Your task to perform on an android device: Add "rayovac triple a" to the cart on bestbuy.com, then select checkout. Image 0: 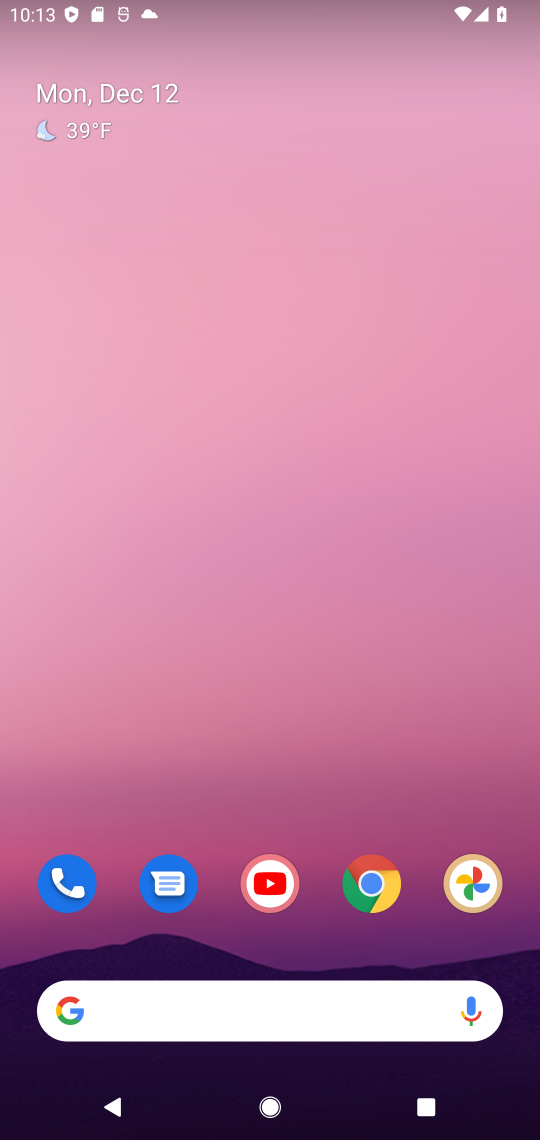
Step 0: click (246, 1005)
Your task to perform on an android device: Add "rayovac triple a" to the cart on bestbuy.com, then select checkout. Image 1: 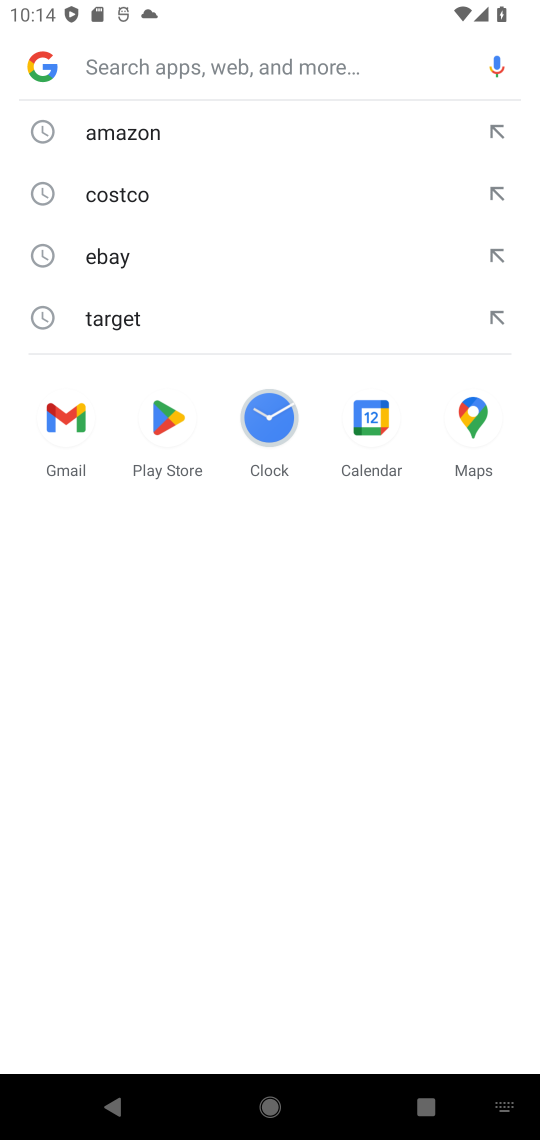
Step 1: type " bestbuy.com"
Your task to perform on an android device: Add "rayovac triple a" to the cart on bestbuy.com, then select checkout. Image 2: 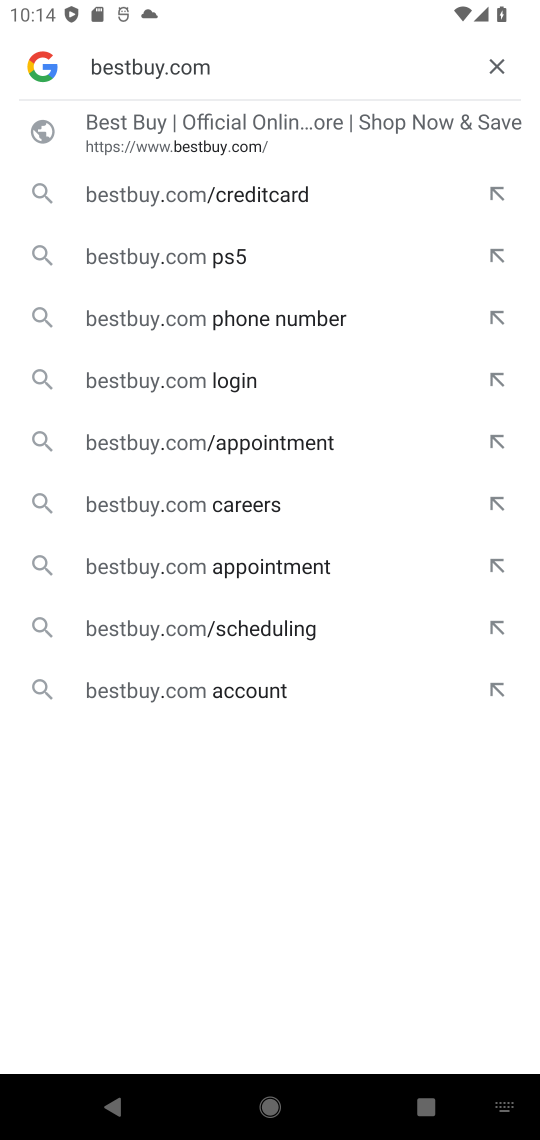
Step 2: click (191, 141)
Your task to perform on an android device: Add "rayovac triple a" to the cart on bestbuy.com, then select checkout. Image 3: 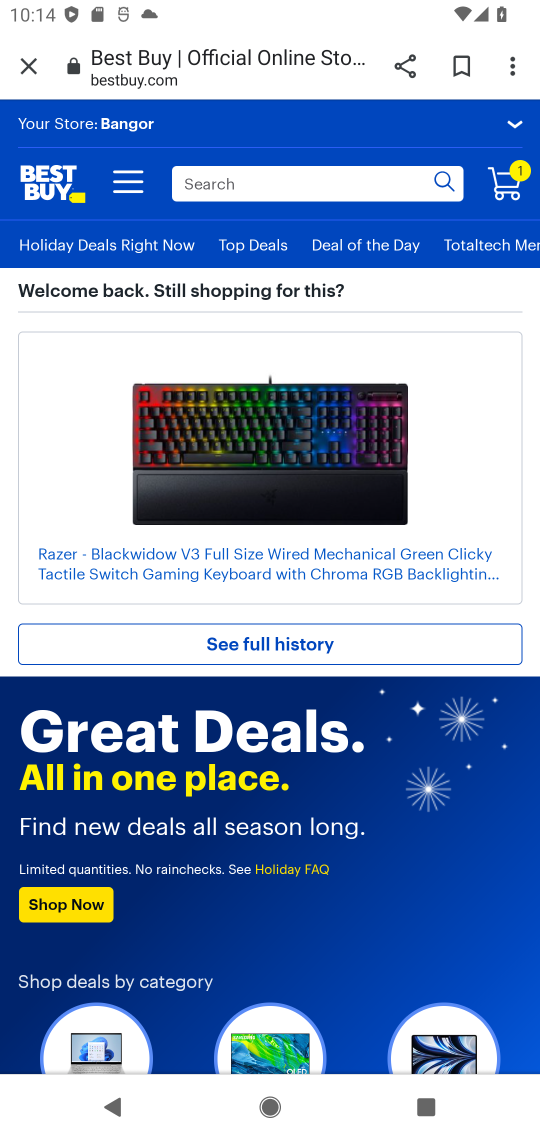
Step 3: click (230, 178)
Your task to perform on an android device: Add "rayovac triple a" to the cart on bestbuy.com, then select checkout. Image 4: 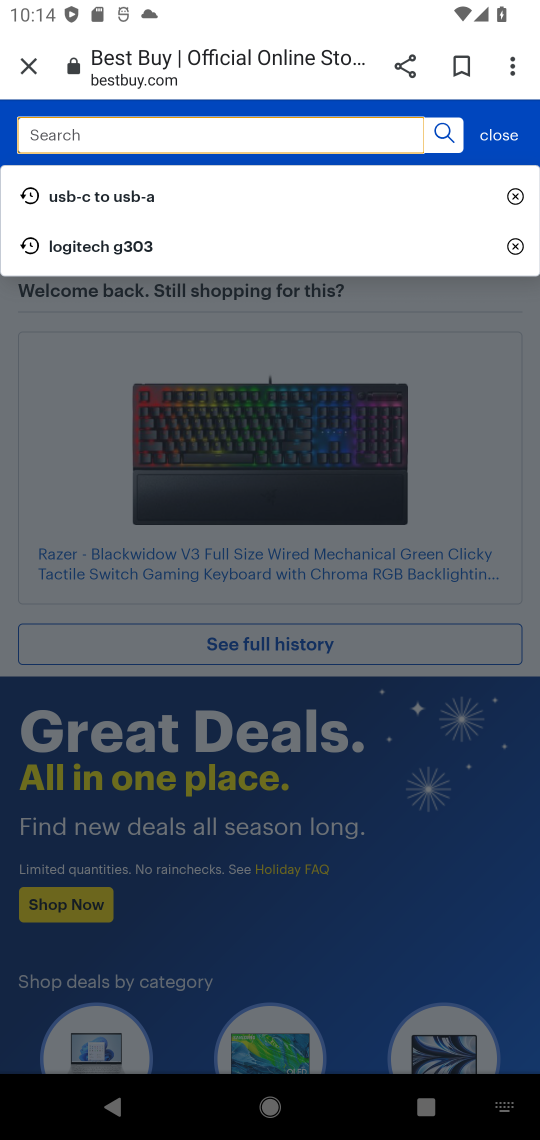
Step 4: type "rayovac triple a"
Your task to perform on an android device: Add "rayovac triple a" to the cart on bestbuy.com, then select checkout. Image 5: 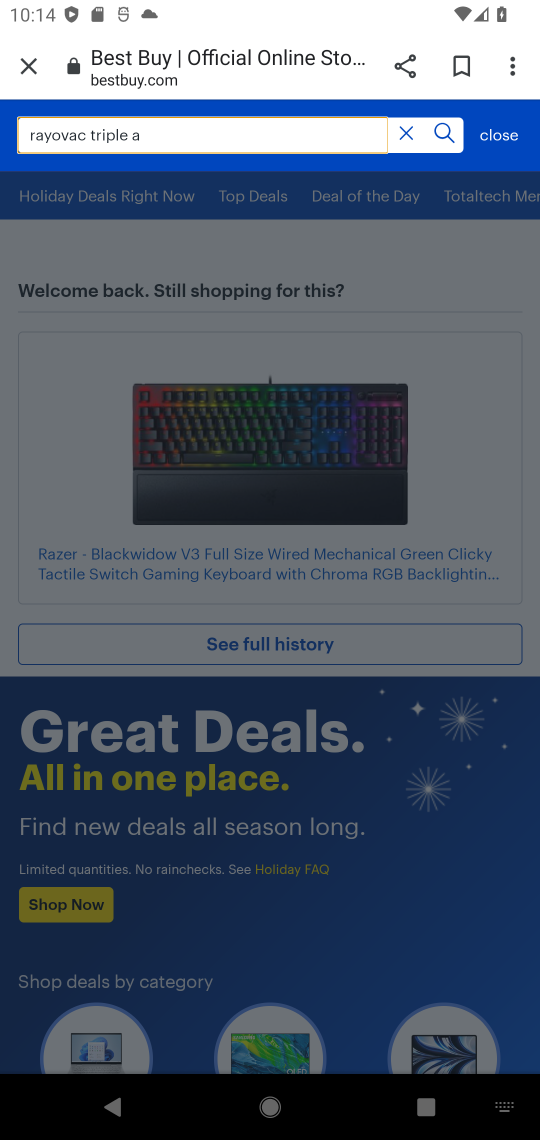
Step 5: click (444, 125)
Your task to perform on an android device: Add "rayovac triple a" to the cart on bestbuy.com, then select checkout. Image 6: 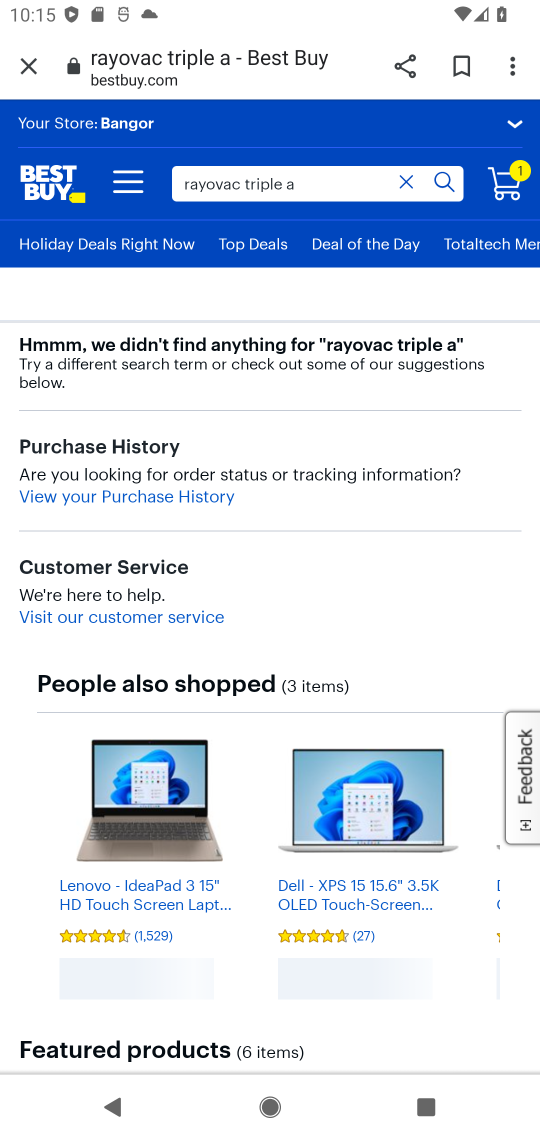
Step 6: drag from (283, 639) to (283, 364)
Your task to perform on an android device: Add "rayovac triple a" to the cart on bestbuy.com, then select checkout. Image 7: 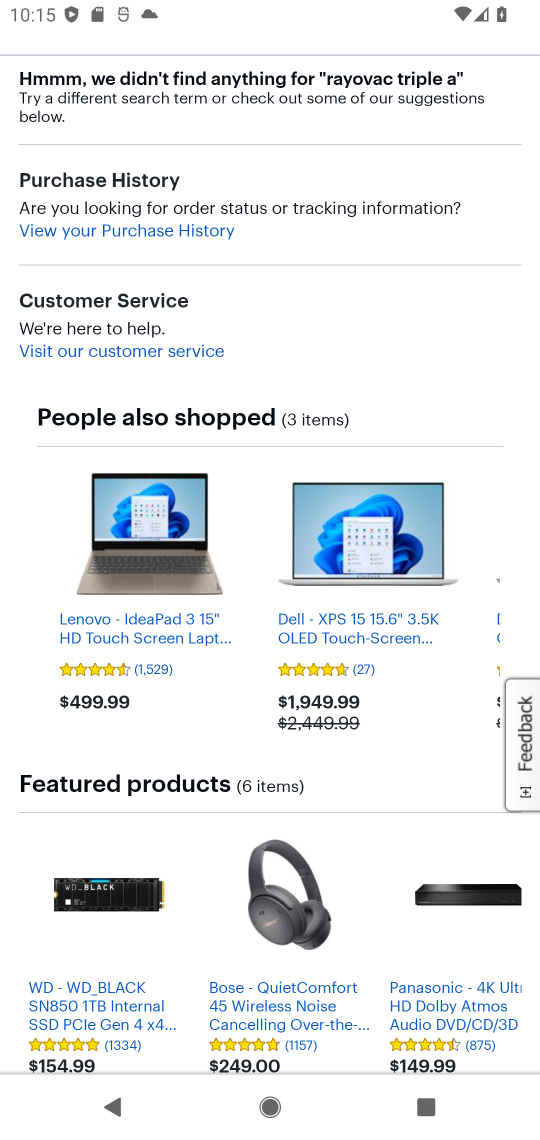
Step 7: click (143, 630)
Your task to perform on an android device: Add "rayovac triple a" to the cart on bestbuy.com, then select checkout. Image 8: 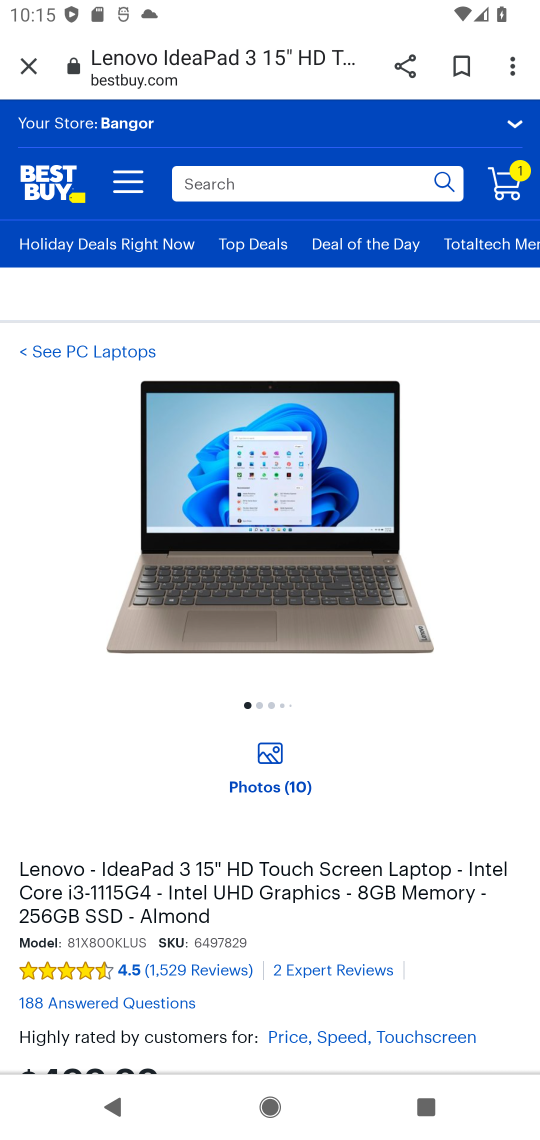
Step 8: drag from (291, 860) to (306, 314)
Your task to perform on an android device: Add "rayovac triple a" to the cart on bestbuy.com, then select checkout. Image 9: 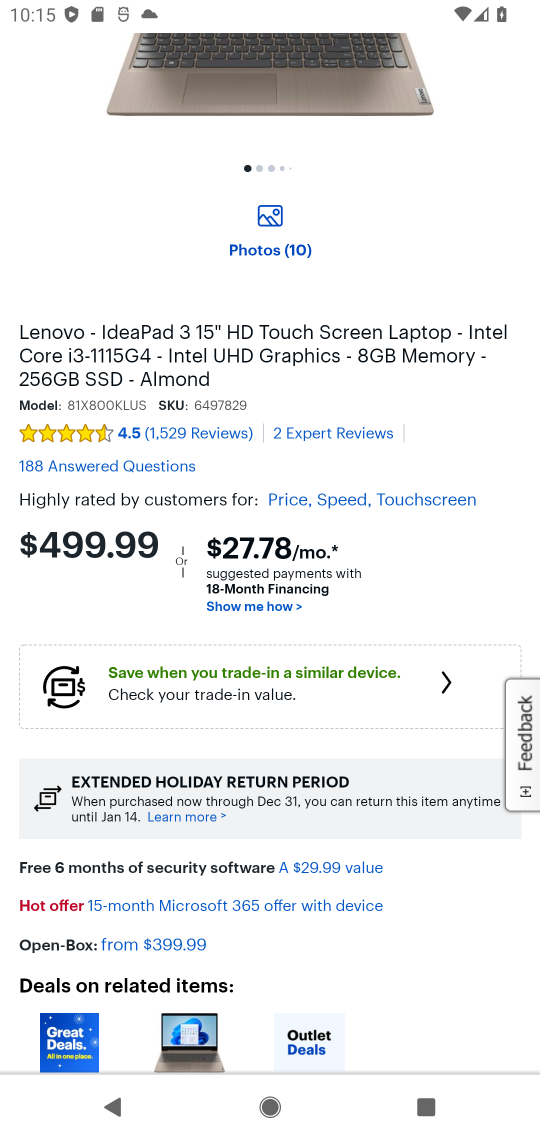
Step 9: drag from (279, 780) to (329, 484)
Your task to perform on an android device: Add "rayovac triple a" to the cart on bestbuy.com, then select checkout. Image 10: 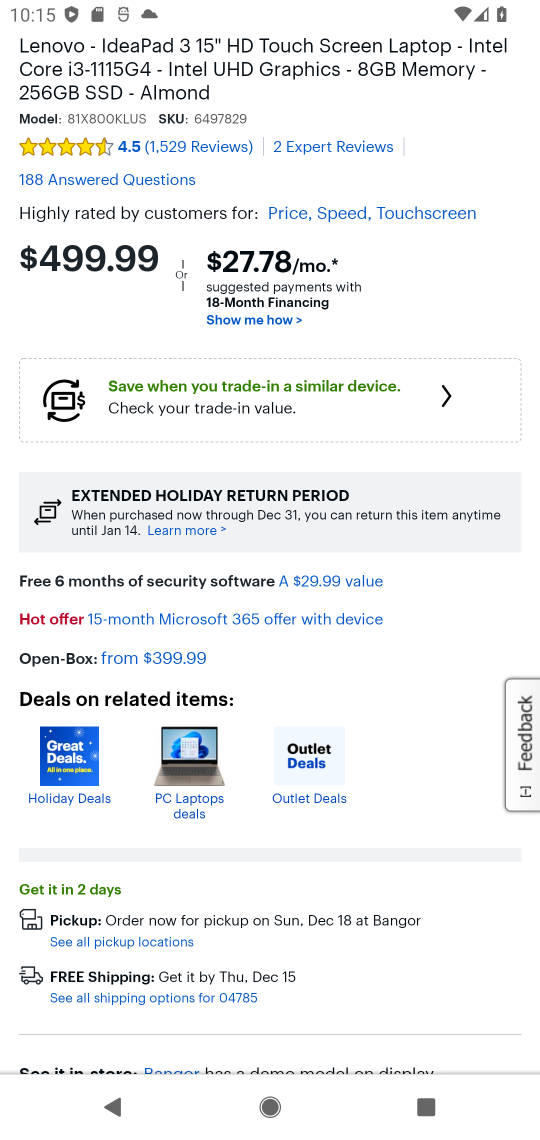
Step 10: drag from (218, 772) to (309, 337)
Your task to perform on an android device: Add "rayovac triple a" to the cart on bestbuy.com, then select checkout. Image 11: 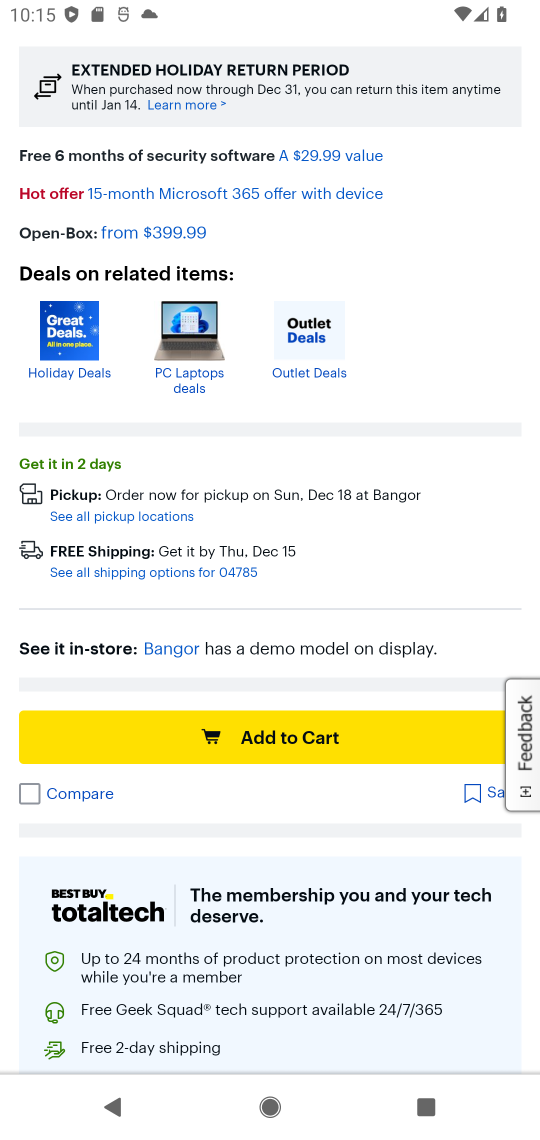
Step 11: click (269, 733)
Your task to perform on an android device: Add "rayovac triple a" to the cart on bestbuy.com, then select checkout. Image 12: 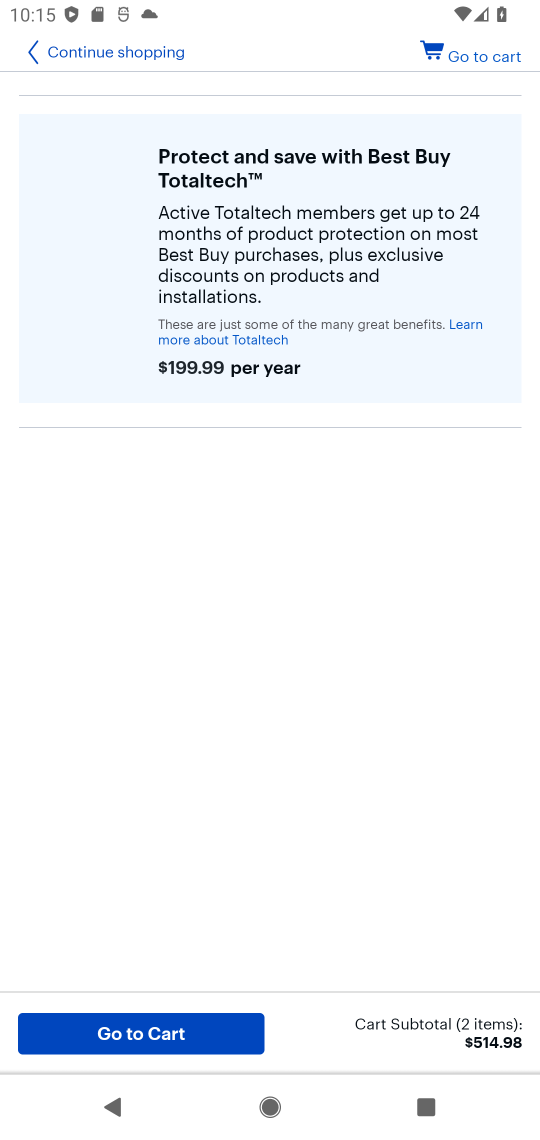
Step 12: task complete